Your task to perform on an android device: Open network settings Image 0: 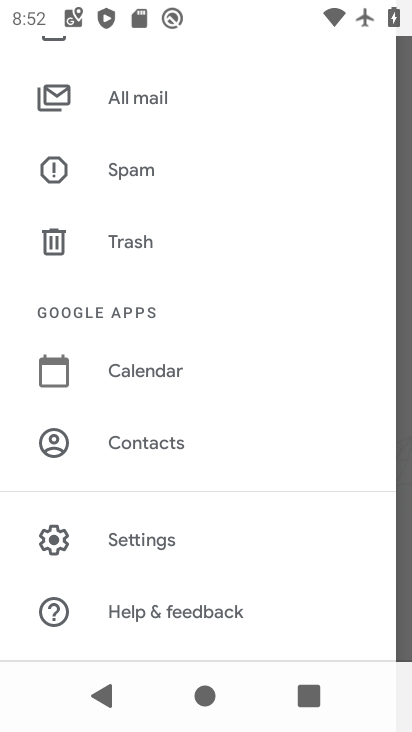
Step 0: press home button
Your task to perform on an android device: Open network settings Image 1: 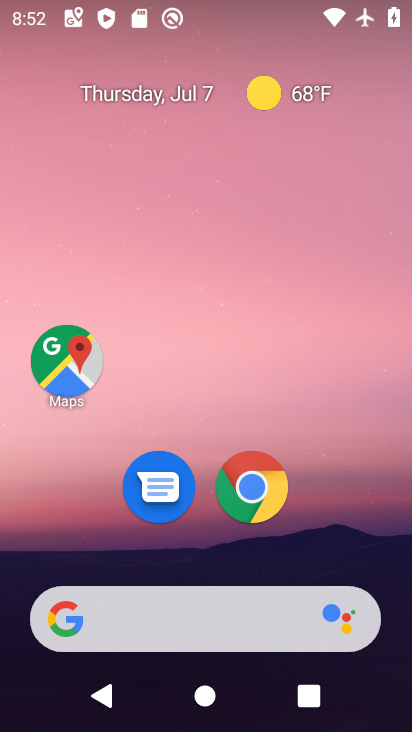
Step 1: drag from (218, 572) to (347, 24)
Your task to perform on an android device: Open network settings Image 2: 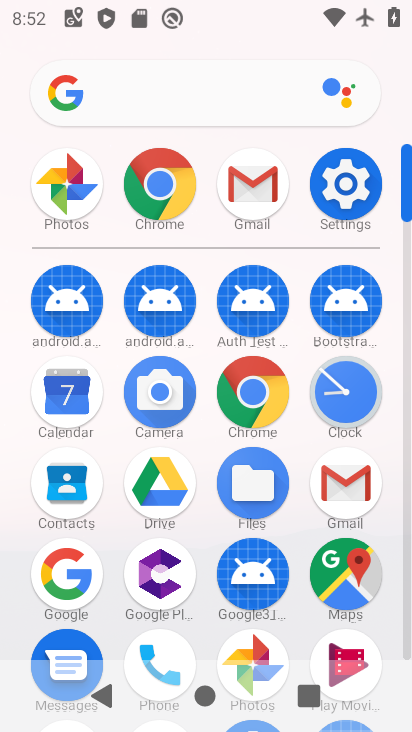
Step 2: click (350, 191)
Your task to perform on an android device: Open network settings Image 3: 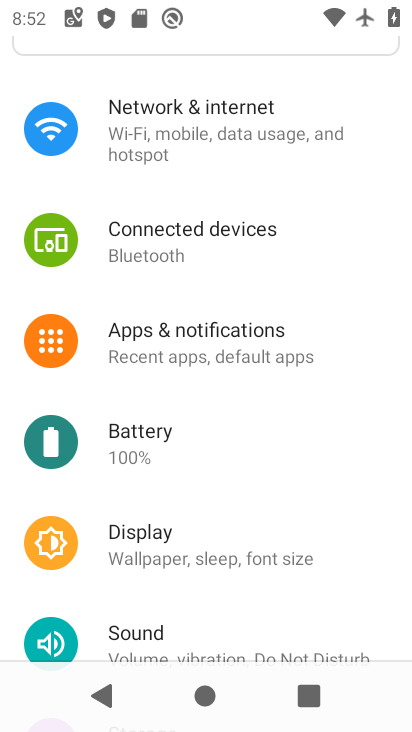
Step 3: click (210, 163)
Your task to perform on an android device: Open network settings Image 4: 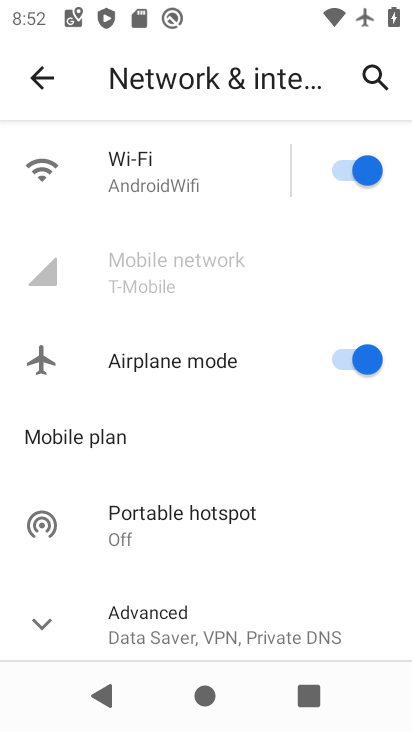
Step 4: task complete